Your task to perform on an android device: allow notifications from all sites in the chrome app Image 0: 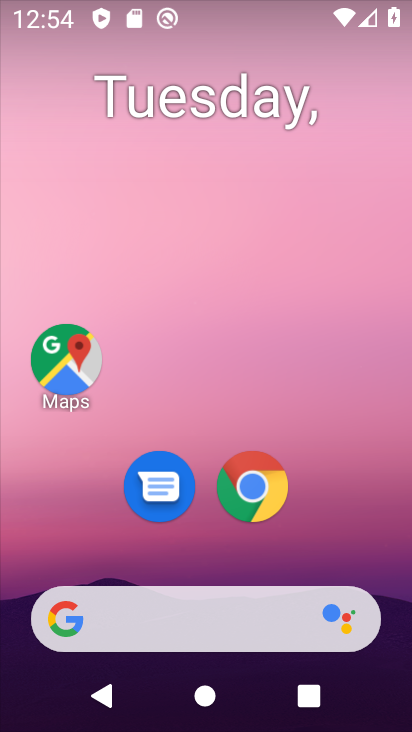
Step 0: drag from (364, 538) to (315, 173)
Your task to perform on an android device: allow notifications from all sites in the chrome app Image 1: 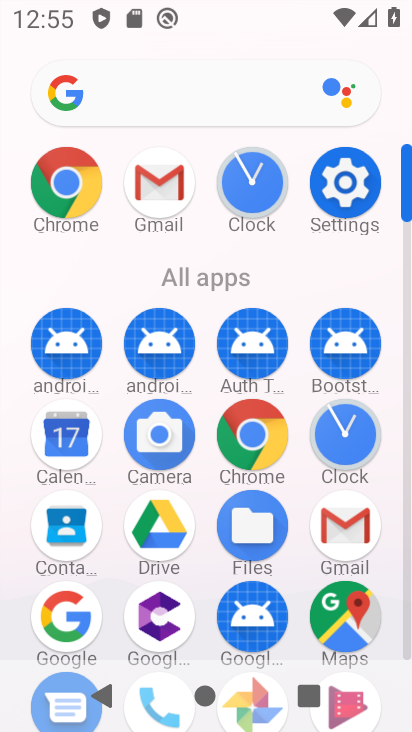
Step 1: click (84, 180)
Your task to perform on an android device: allow notifications from all sites in the chrome app Image 2: 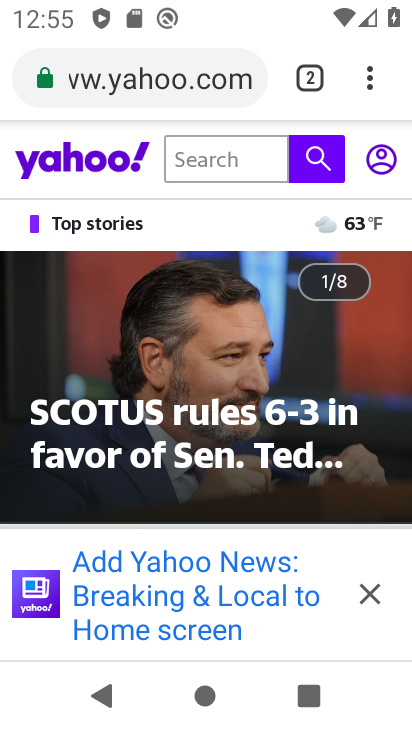
Step 2: click (364, 81)
Your task to perform on an android device: allow notifications from all sites in the chrome app Image 3: 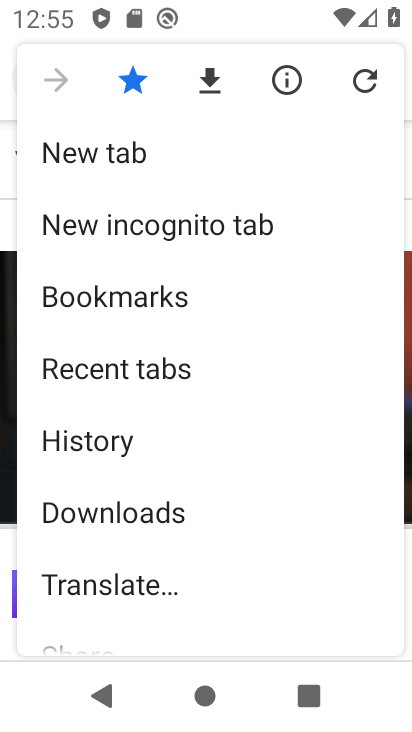
Step 3: drag from (252, 622) to (284, 166)
Your task to perform on an android device: allow notifications from all sites in the chrome app Image 4: 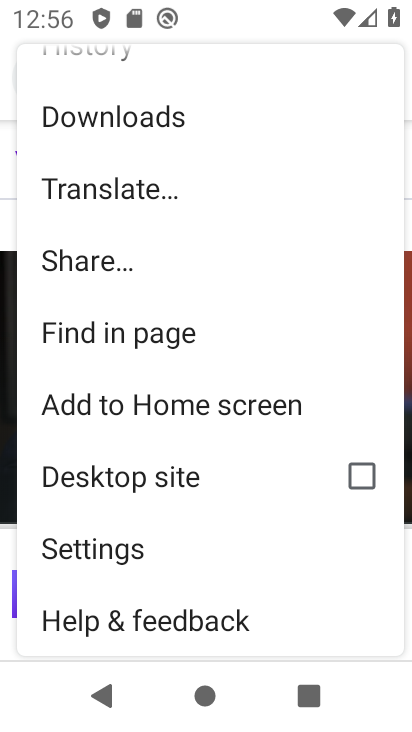
Step 4: click (210, 544)
Your task to perform on an android device: allow notifications from all sites in the chrome app Image 5: 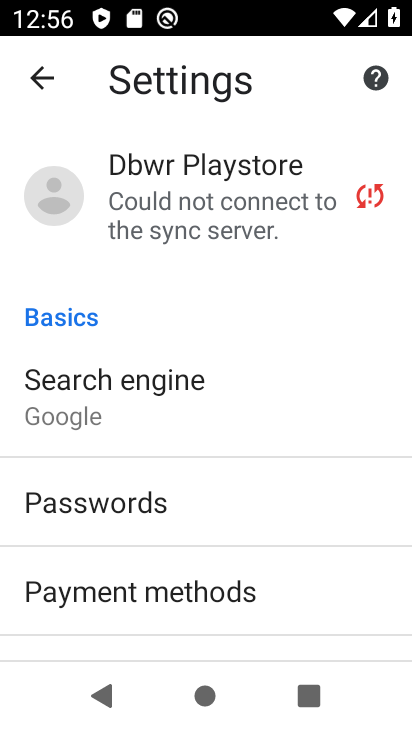
Step 5: drag from (255, 646) to (269, 195)
Your task to perform on an android device: allow notifications from all sites in the chrome app Image 6: 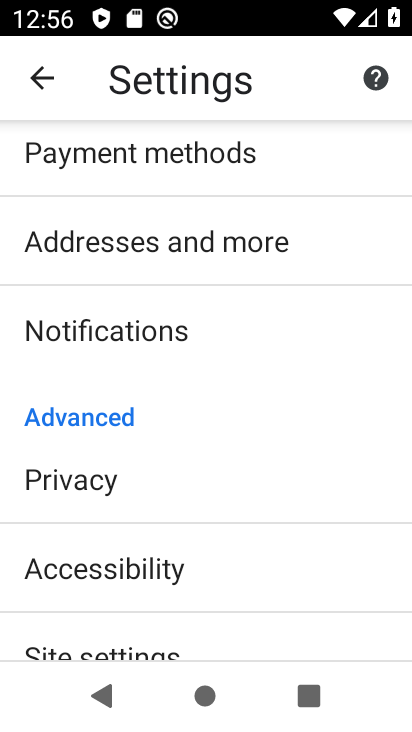
Step 6: drag from (271, 618) to (237, 231)
Your task to perform on an android device: allow notifications from all sites in the chrome app Image 7: 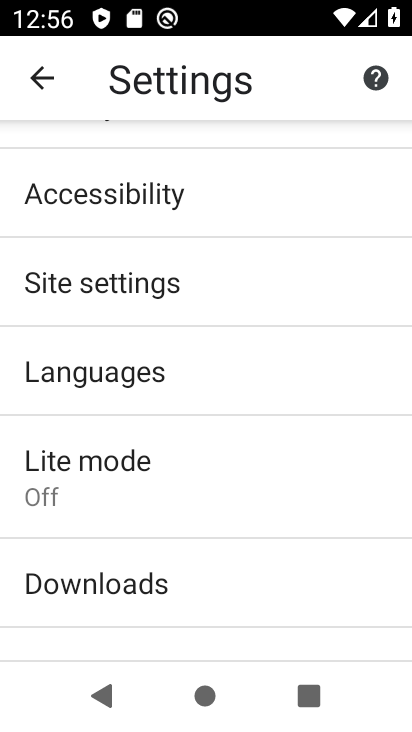
Step 7: click (229, 306)
Your task to perform on an android device: allow notifications from all sites in the chrome app Image 8: 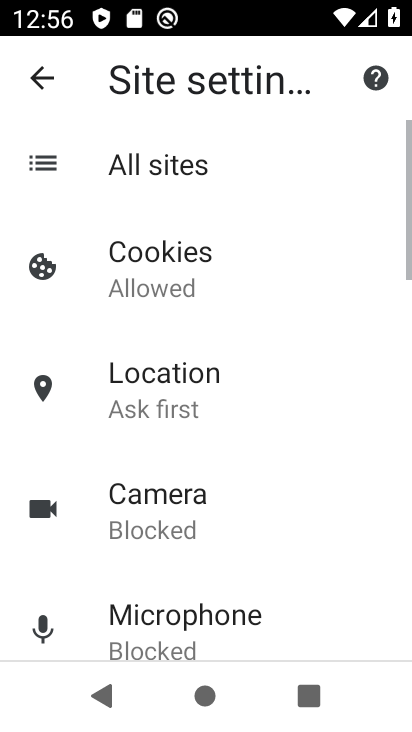
Step 8: drag from (270, 560) to (276, 117)
Your task to perform on an android device: allow notifications from all sites in the chrome app Image 9: 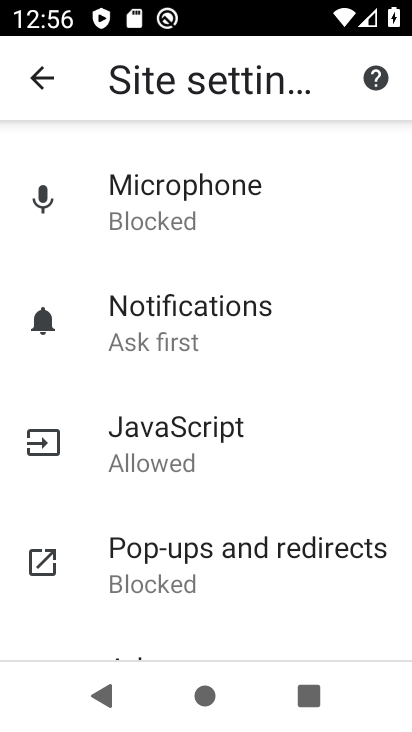
Step 9: click (268, 301)
Your task to perform on an android device: allow notifications from all sites in the chrome app Image 10: 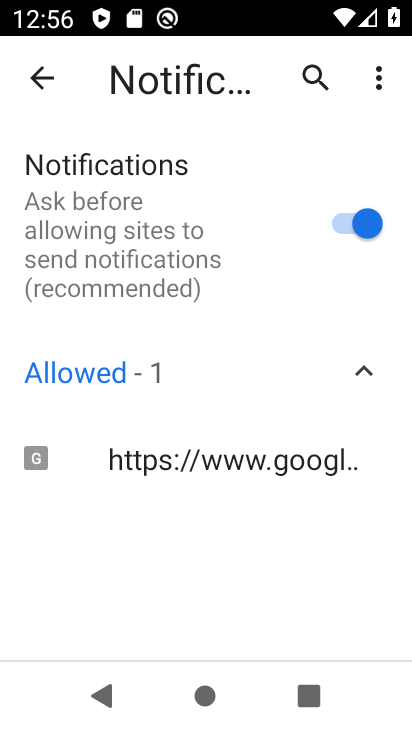
Step 10: task complete